Your task to perform on an android device: visit the assistant section in the google photos Image 0: 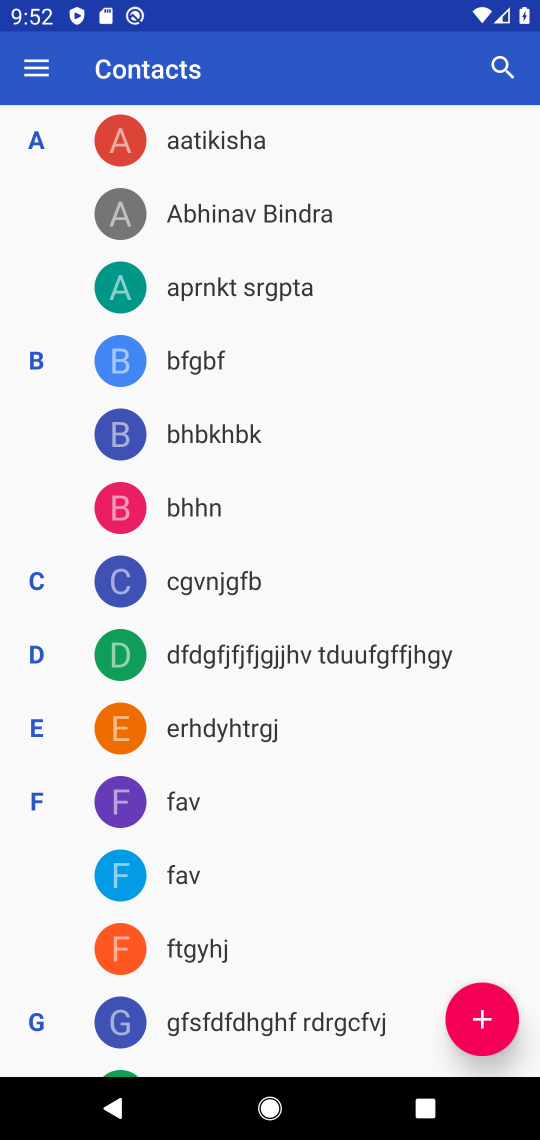
Step 0: press back button
Your task to perform on an android device: visit the assistant section in the google photos Image 1: 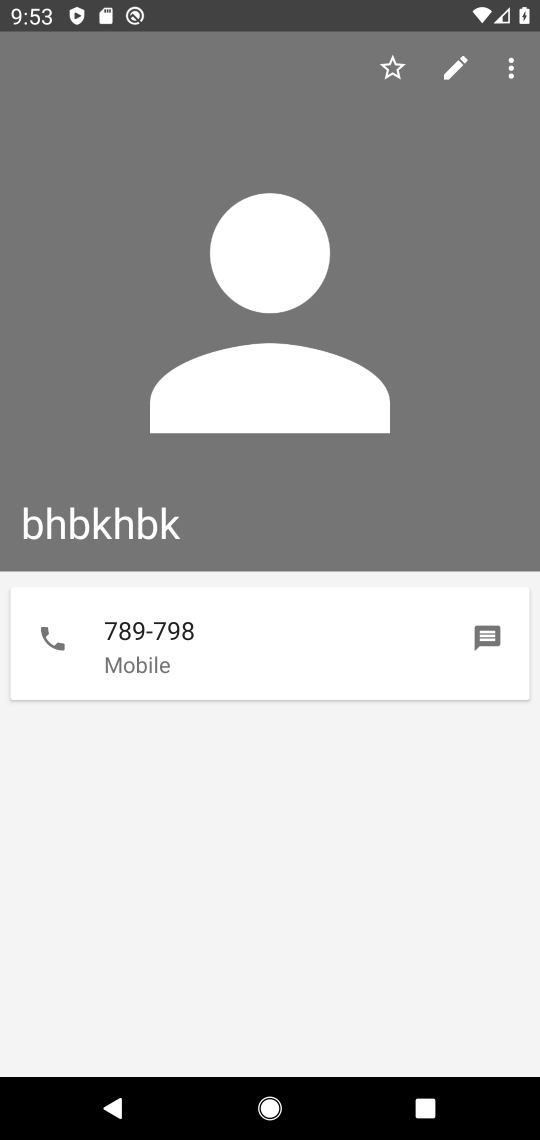
Step 1: press home button
Your task to perform on an android device: visit the assistant section in the google photos Image 2: 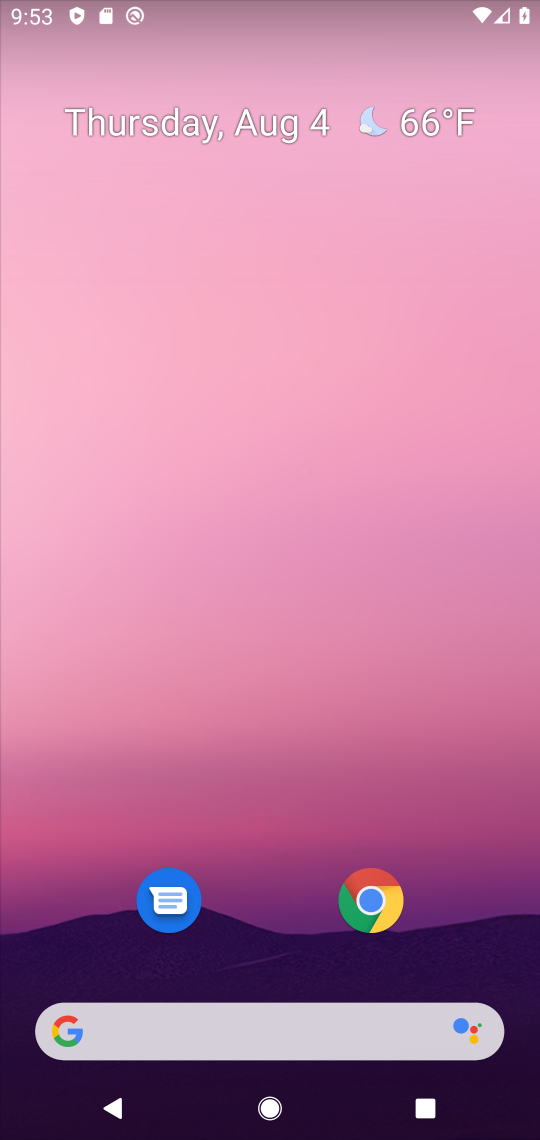
Step 2: drag from (488, 980) to (233, 274)
Your task to perform on an android device: visit the assistant section in the google photos Image 3: 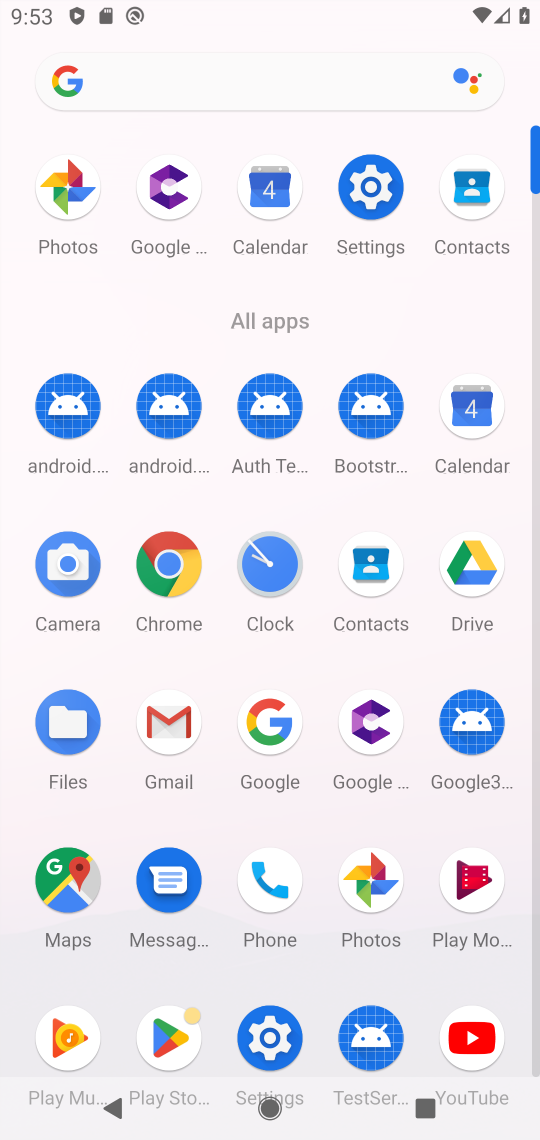
Step 3: click (82, 203)
Your task to perform on an android device: visit the assistant section in the google photos Image 4: 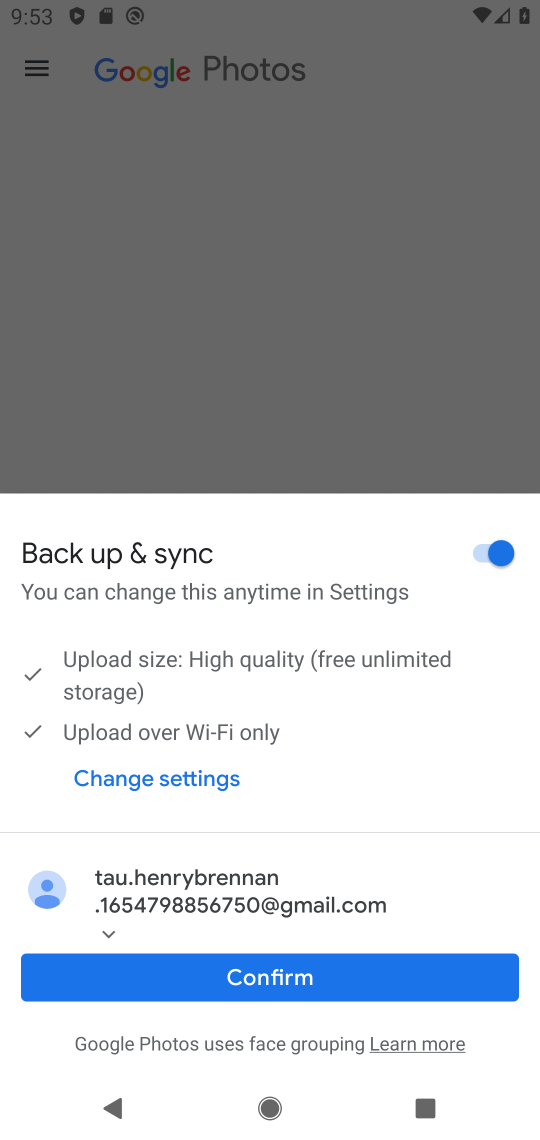
Step 4: click (287, 986)
Your task to perform on an android device: visit the assistant section in the google photos Image 5: 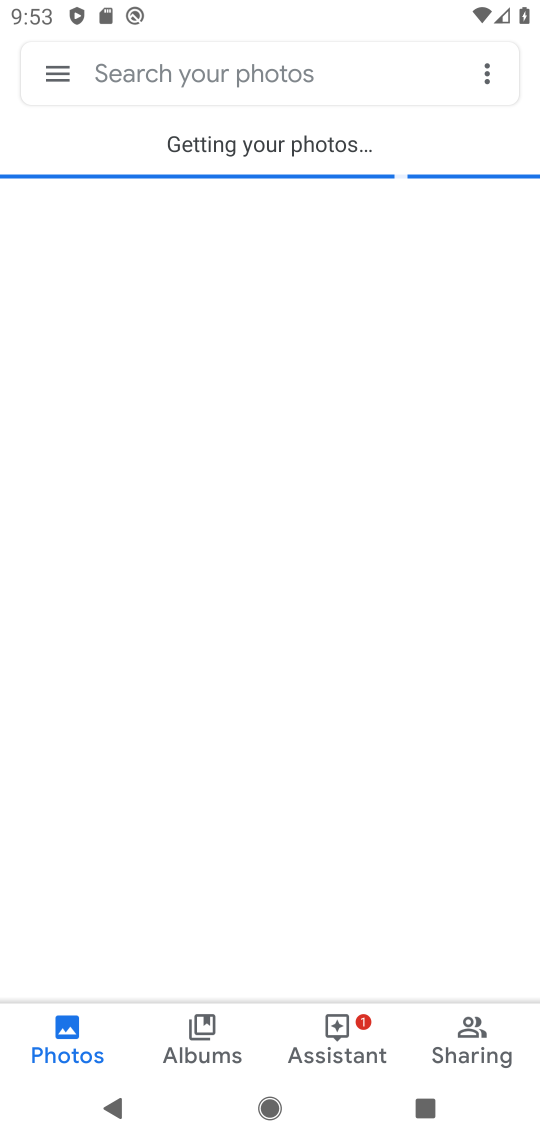
Step 5: click (341, 1031)
Your task to perform on an android device: visit the assistant section in the google photos Image 6: 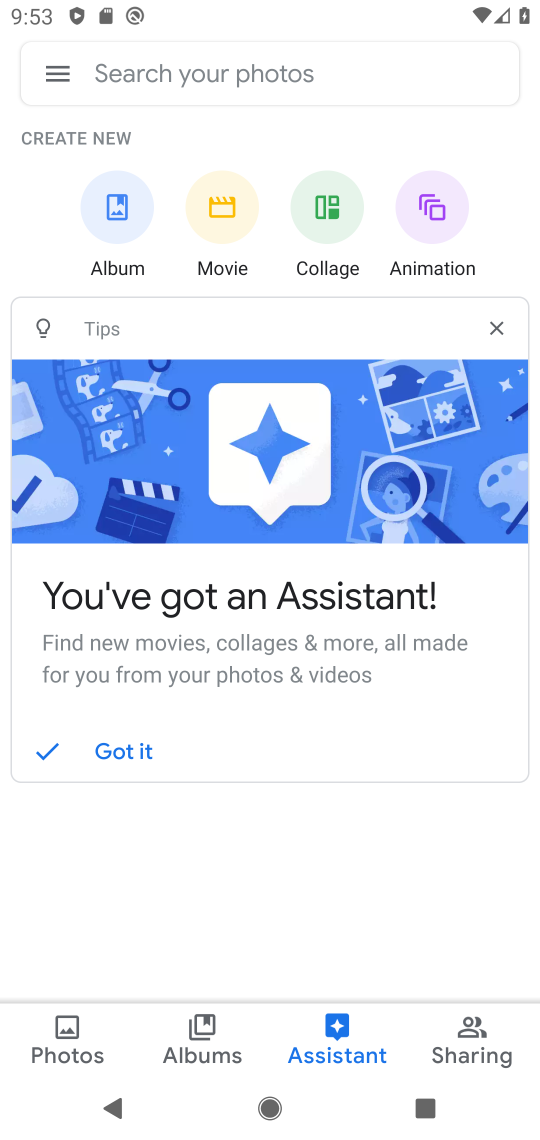
Step 6: task complete